Your task to perform on an android device: toggle sleep mode Image 0: 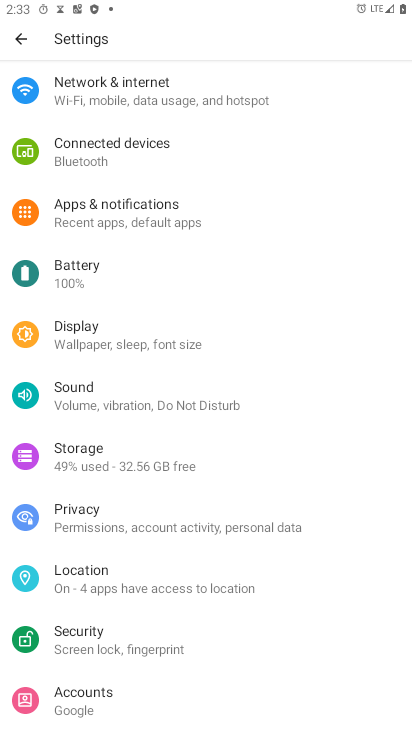
Step 0: drag from (150, 623) to (150, 223)
Your task to perform on an android device: toggle sleep mode Image 1: 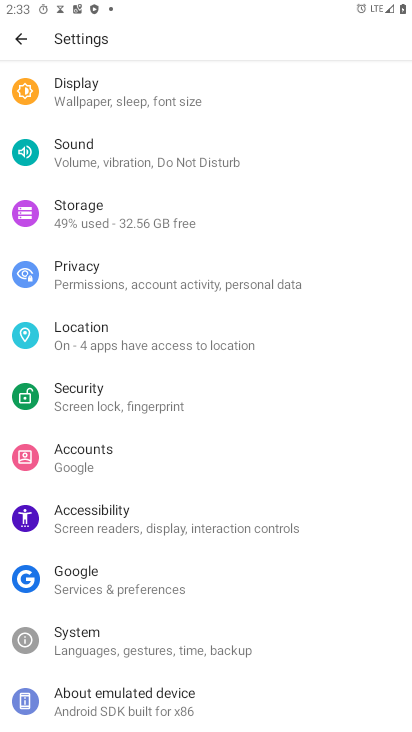
Step 1: click (166, 101)
Your task to perform on an android device: toggle sleep mode Image 2: 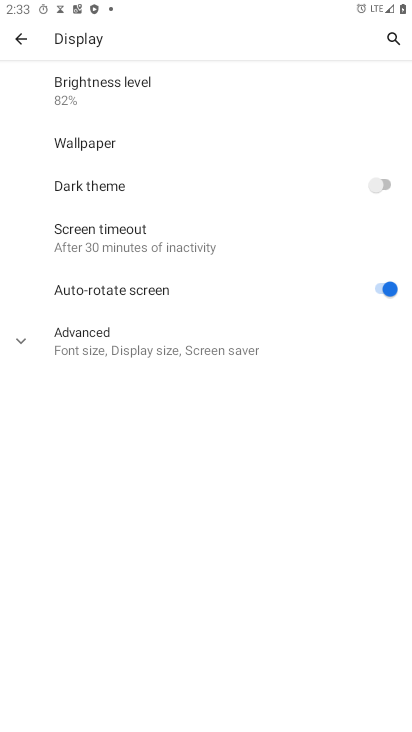
Step 2: click (20, 33)
Your task to perform on an android device: toggle sleep mode Image 3: 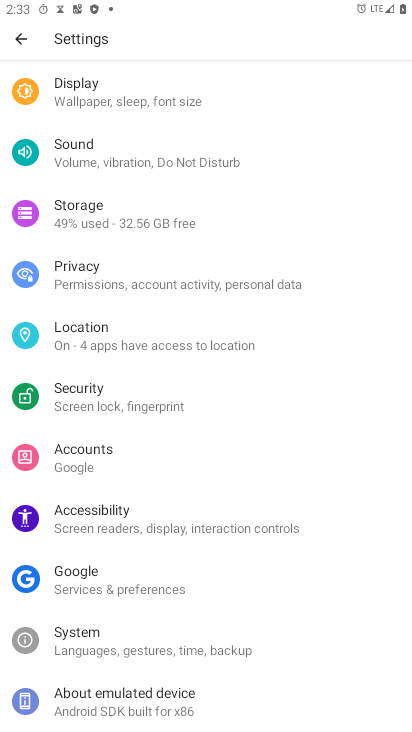
Step 3: task complete